Your task to perform on an android device: find which apps use the phone's location Image 0: 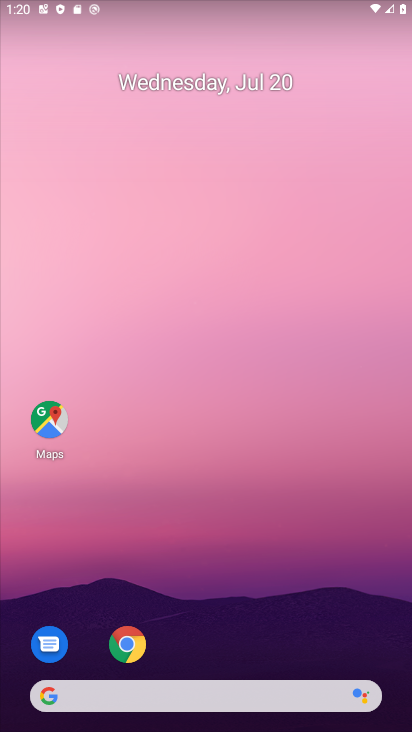
Step 0: press home button
Your task to perform on an android device: find which apps use the phone's location Image 1: 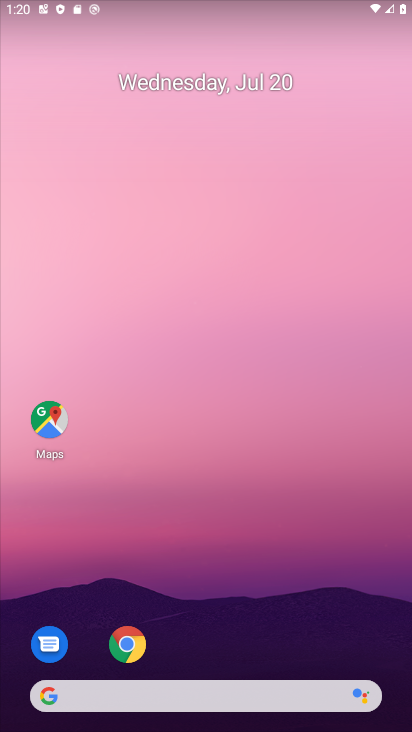
Step 1: drag from (288, 656) to (296, 67)
Your task to perform on an android device: find which apps use the phone's location Image 2: 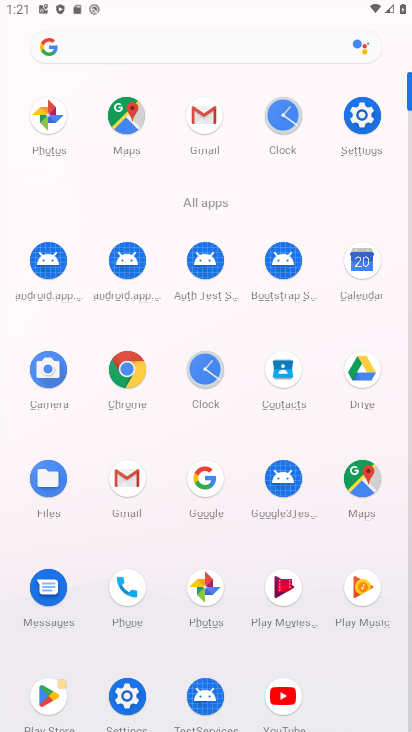
Step 2: click (366, 119)
Your task to perform on an android device: find which apps use the phone's location Image 3: 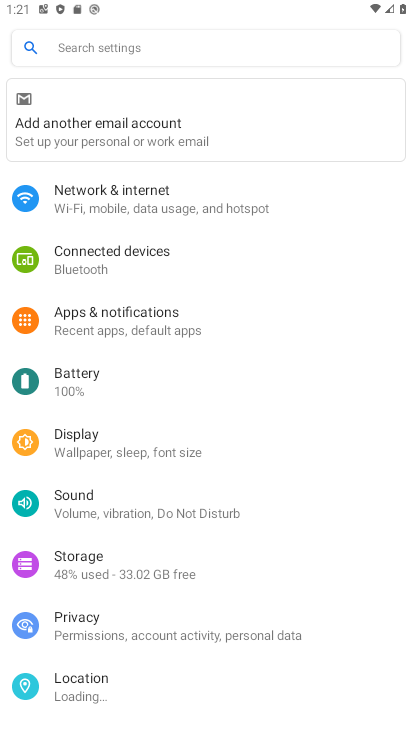
Step 3: click (96, 678)
Your task to perform on an android device: find which apps use the phone's location Image 4: 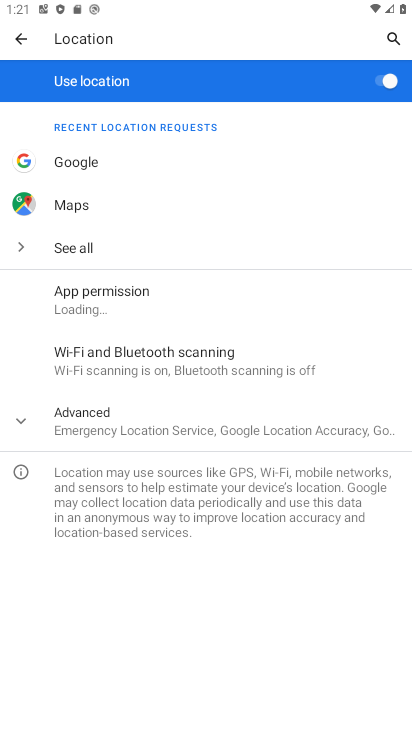
Step 4: click (100, 304)
Your task to perform on an android device: find which apps use the phone's location Image 5: 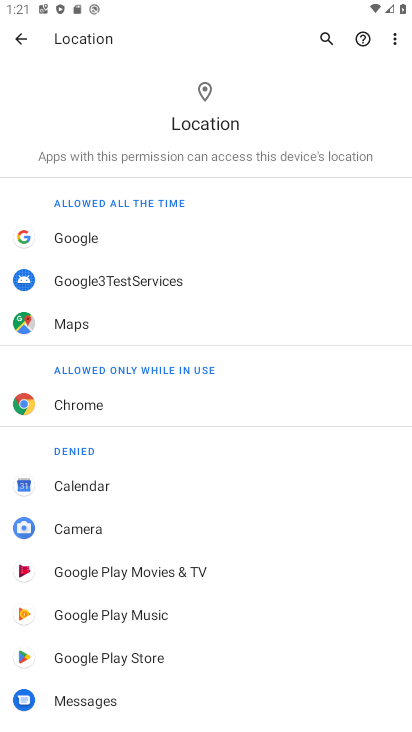
Step 5: task complete